Your task to perform on an android device: Go to display settings Image 0: 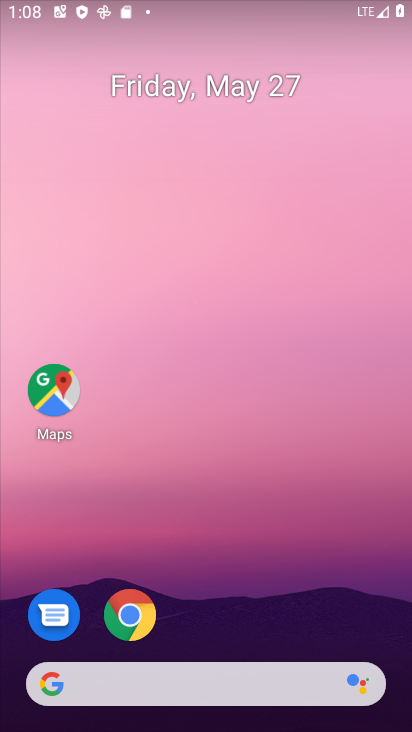
Step 0: drag from (191, 686) to (196, 37)
Your task to perform on an android device: Go to display settings Image 1: 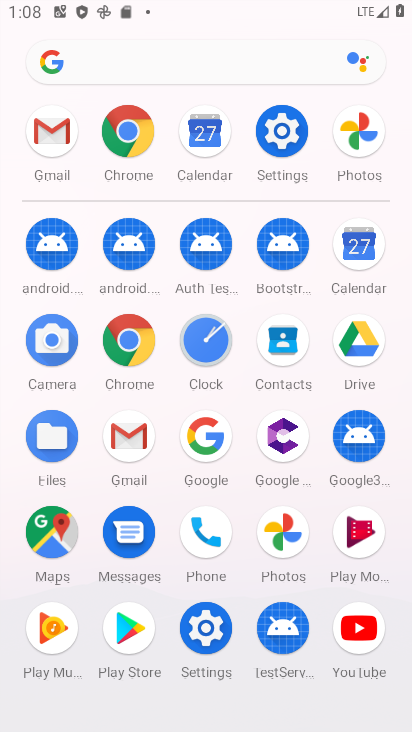
Step 1: click (272, 127)
Your task to perform on an android device: Go to display settings Image 2: 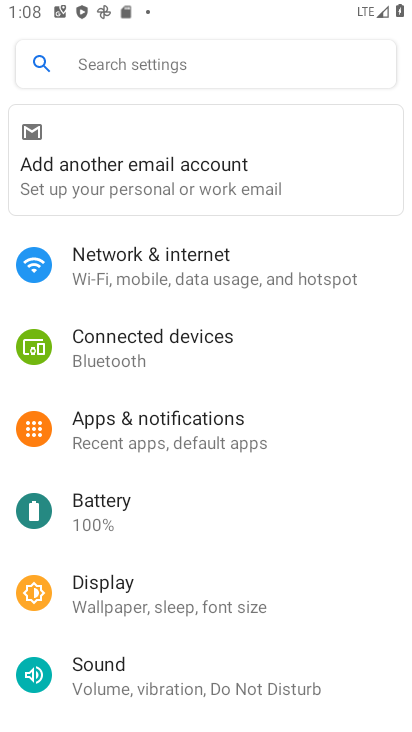
Step 2: click (151, 603)
Your task to perform on an android device: Go to display settings Image 3: 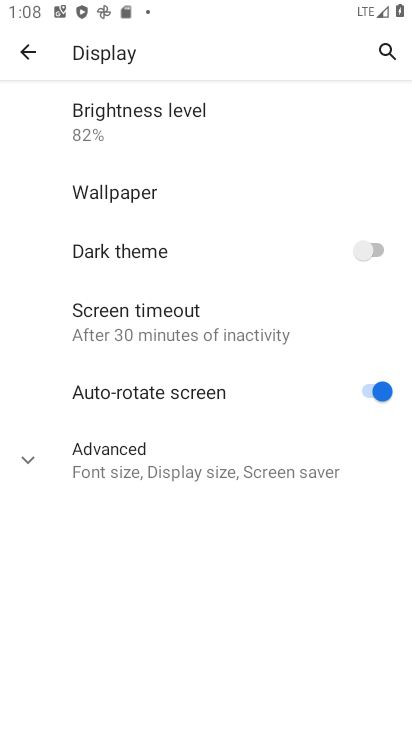
Step 3: task complete